Your task to perform on an android device: open app "Viber Messenger" Image 0: 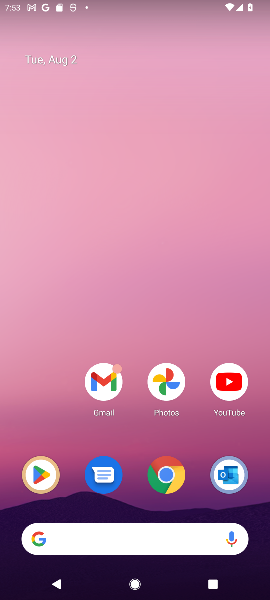
Step 0: drag from (200, 338) to (175, 221)
Your task to perform on an android device: open app "Viber Messenger" Image 1: 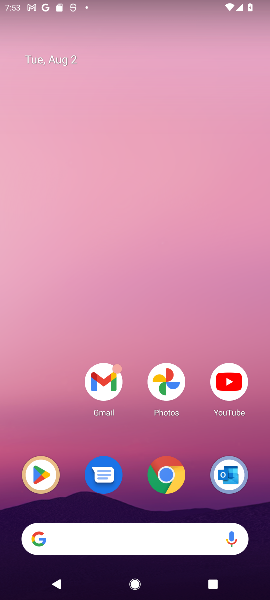
Step 1: drag from (189, 293) to (167, 87)
Your task to perform on an android device: open app "Viber Messenger" Image 2: 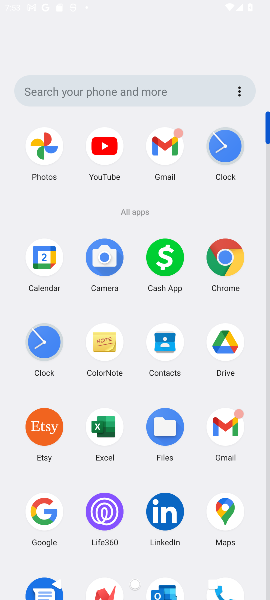
Step 2: drag from (167, 369) to (134, 154)
Your task to perform on an android device: open app "Viber Messenger" Image 3: 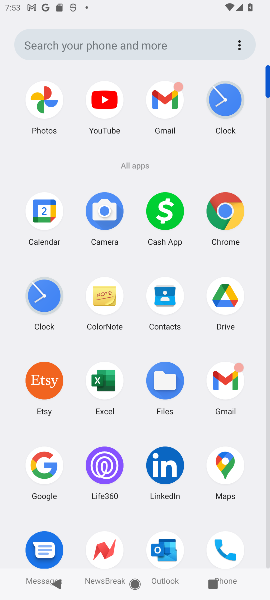
Step 3: drag from (223, 434) to (217, 159)
Your task to perform on an android device: open app "Viber Messenger" Image 4: 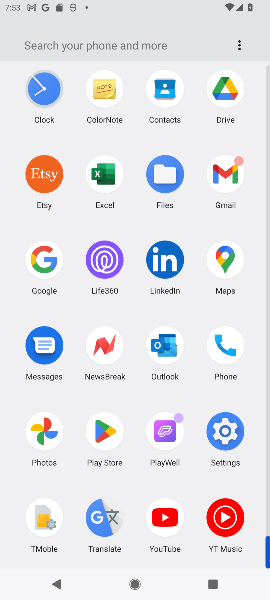
Step 4: click (20, 161)
Your task to perform on an android device: open app "Viber Messenger" Image 5: 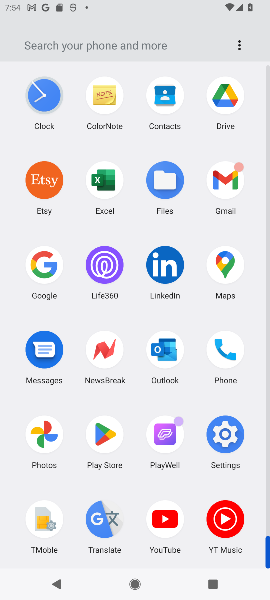
Step 5: click (95, 435)
Your task to perform on an android device: open app "Viber Messenger" Image 6: 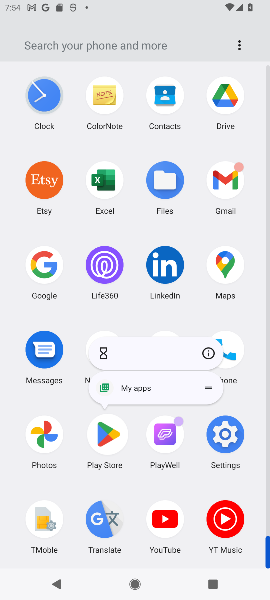
Step 6: click (99, 435)
Your task to perform on an android device: open app "Viber Messenger" Image 7: 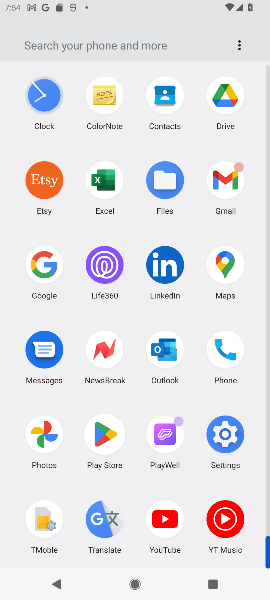
Step 7: click (100, 436)
Your task to perform on an android device: open app "Viber Messenger" Image 8: 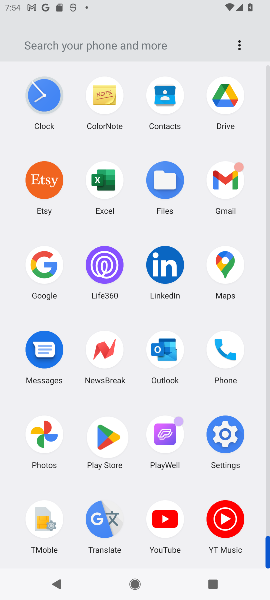
Step 8: click (100, 436)
Your task to perform on an android device: open app "Viber Messenger" Image 9: 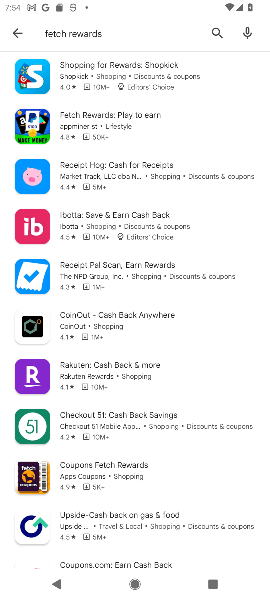
Step 9: click (109, 431)
Your task to perform on an android device: open app "Viber Messenger" Image 10: 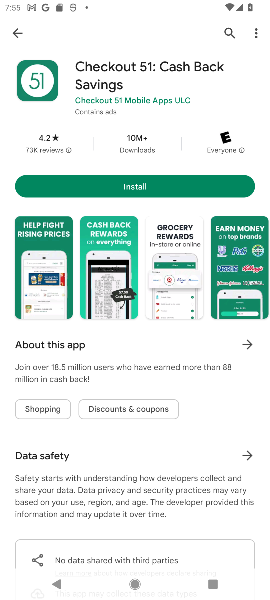
Step 10: click (21, 38)
Your task to perform on an android device: open app "Viber Messenger" Image 11: 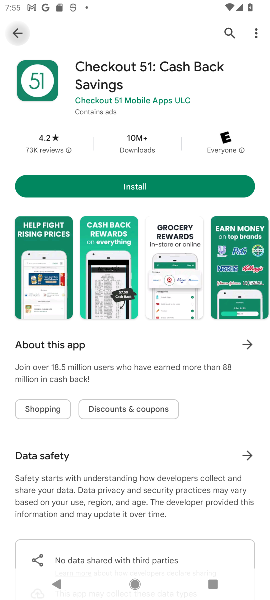
Step 11: click (21, 38)
Your task to perform on an android device: open app "Viber Messenger" Image 12: 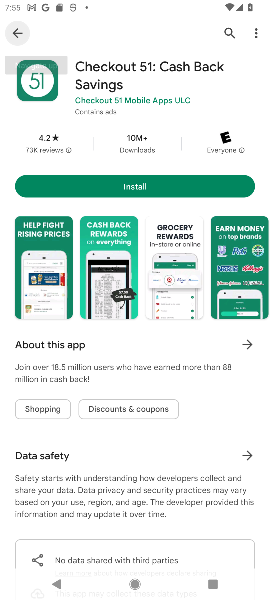
Step 12: click (18, 37)
Your task to perform on an android device: open app "Viber Messenger" Image 13: 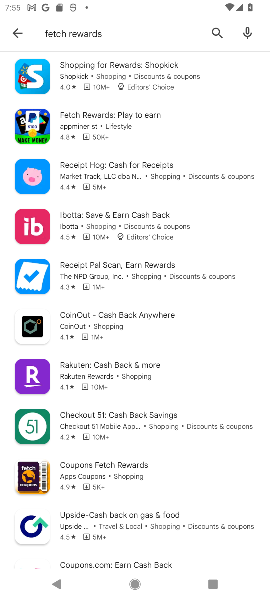
Step 13: click (12, 37)
Your task to perform on an android device: open app "Viber Messenger" Image 14: 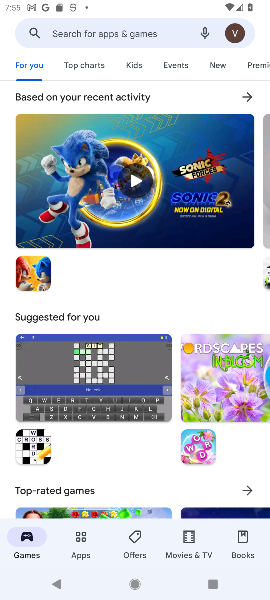
Step 14: click (108, 27)
Your task to perform on an android device: open app "Viber Messenger" Image 15: 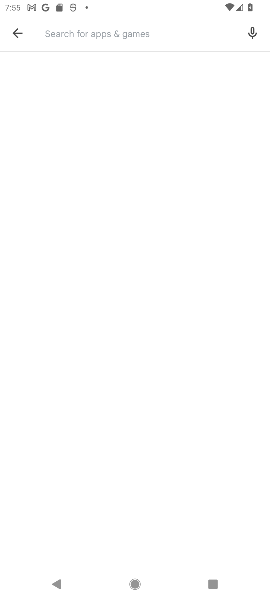
Step 15: click (114, 31)
Your task to perform on an android device: open app "Viber Messenger" Image 16: 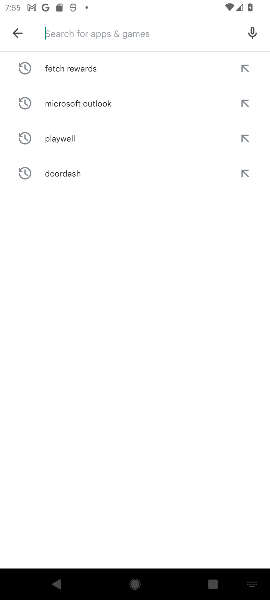
Step 16: type "viber messages"
Your task to perform on an android device: open app "Viber Messenger" Image 17: 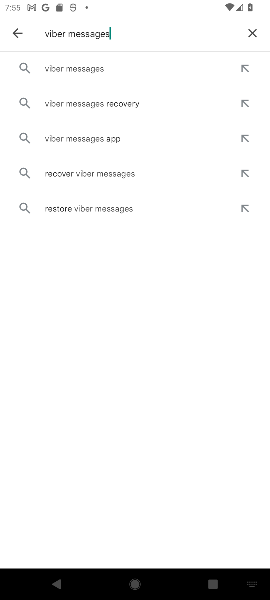
Step 17: click (240, 68)
Your task to perform on an android device: open app "Viber Messenger" Image 18: 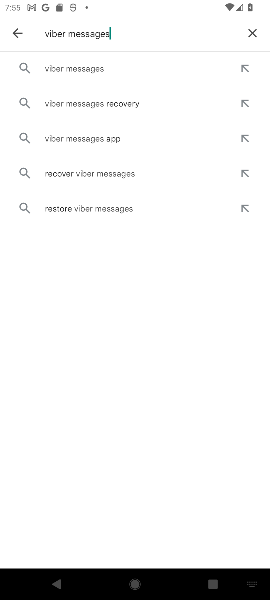
Step 18: click (240, 68)
Your task to perform on an android device: open app "Viber Messenger" Image 19: 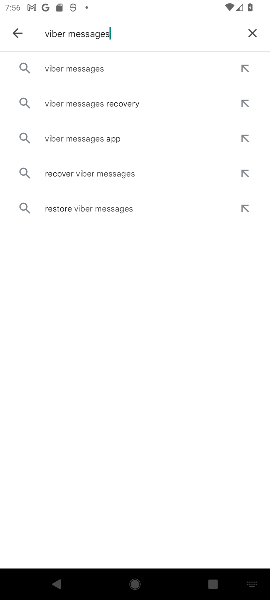
Step 19: click (76, 67)
Your task to perform on an android device: open app "Viber Messenger" Image 20: 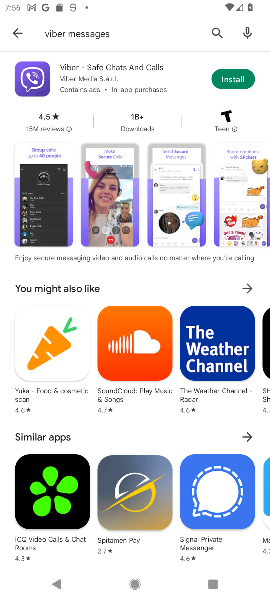
Step 20: click (229, 81)
Your task to perform on an android device: open app "Viber Messenger" Image 21: 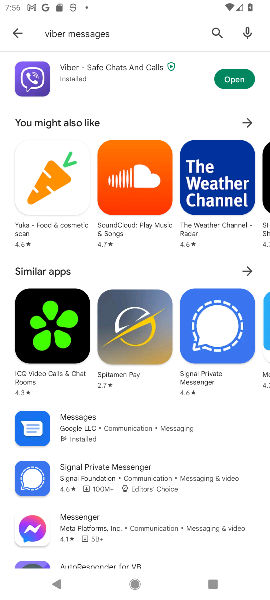
Step 21: click (238, 82)
Your task to perform on an android device: open app "Viber Messenger" Image 22: 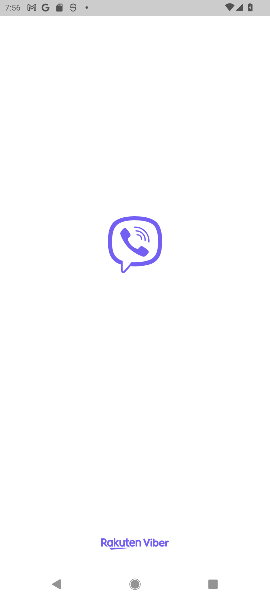
Step 22: task complete